Your task to perform on an android device: Go to Android settings Image 0: 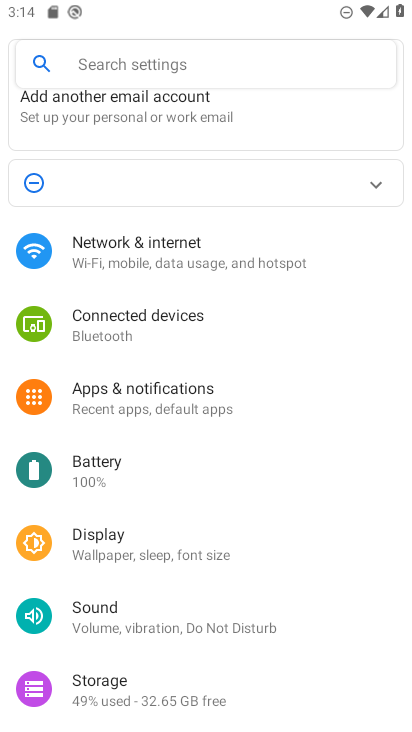
Step 0: press home button
Your task to perform on an android device: Go to Android settings Image 1: 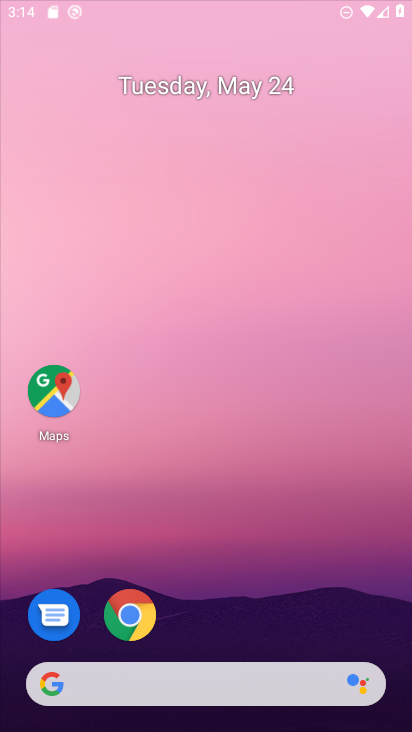
Step 1: drag from (228, 573) to (255, 199)
Your task to perform on an android device: Go to Android settings Image 2: 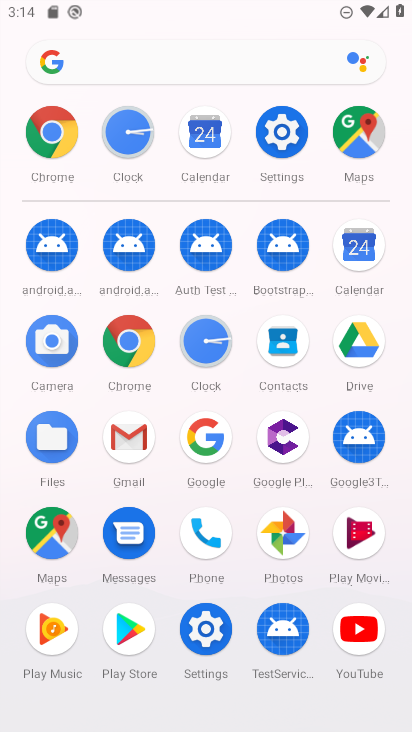
Step 2: click (292, 169)
Your task to perform on an android device: Go to Android settings Image 3: 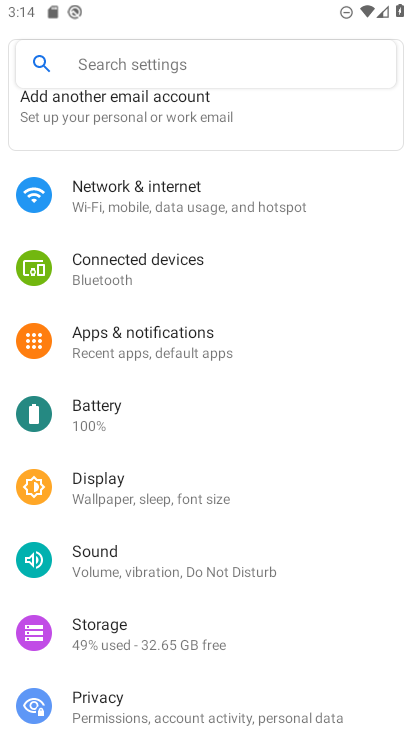
Step 3: drag from (199, 575) to (262, 226)
Your task to perform on an android device: Go to Android settings Image 4: 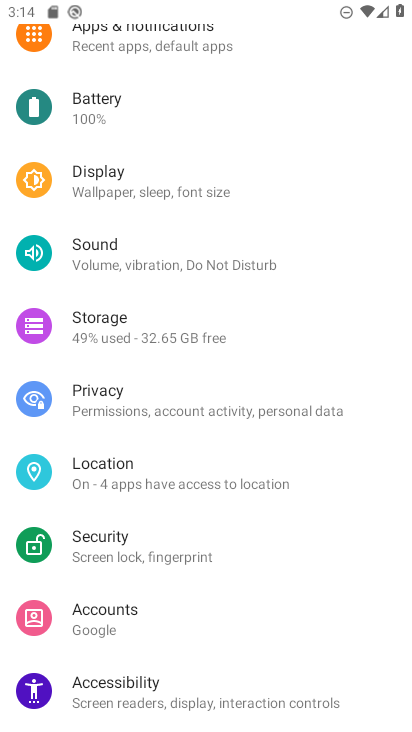
Step 4: drag from (179, 591) to (252, 264)
Your task to perform on an android device: Go to Android settings Image 5: 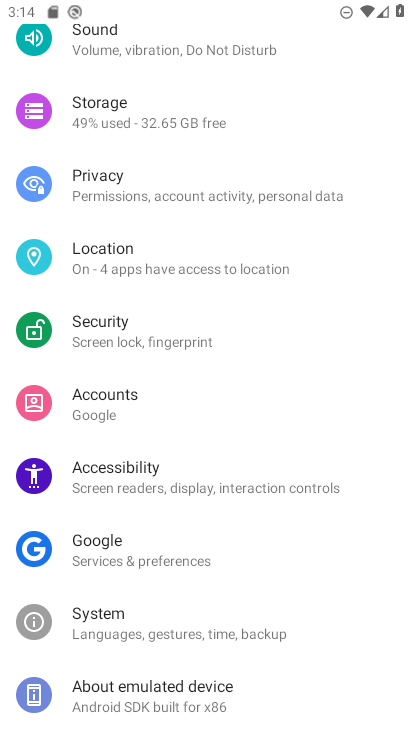
Step 5: drag from (209, 543) to (292, 218)
Your task to perform on an android device: Go to Android settings Image 6: 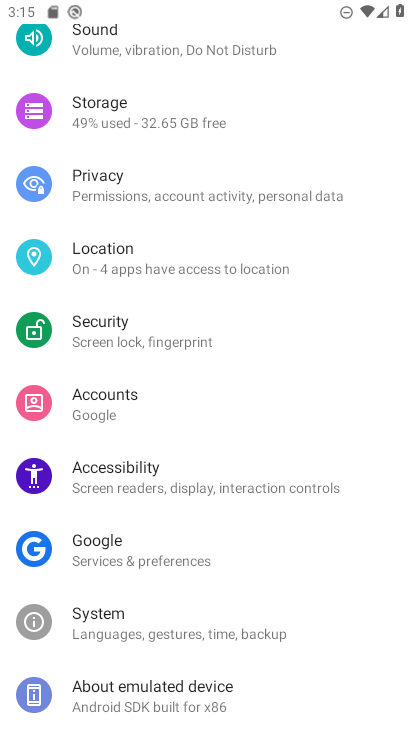
Step 6: click (208, 698)
Your task to perform on an android device: Go to Android settings Image 7: 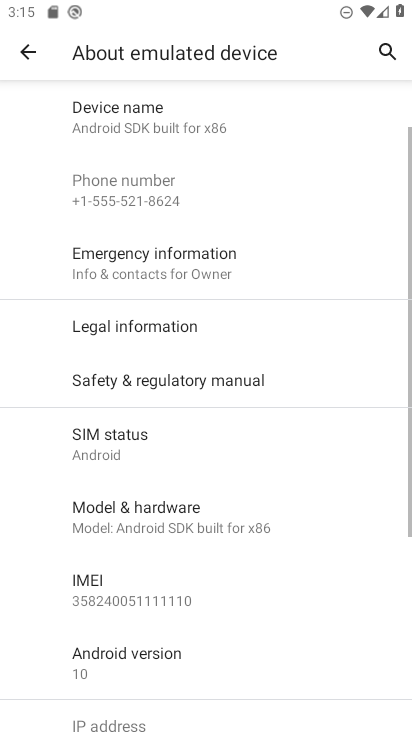
Step 7: drag from (202, 583) to (242, 308)
Your task to perform on an android device: Go to Android settings Image 8: 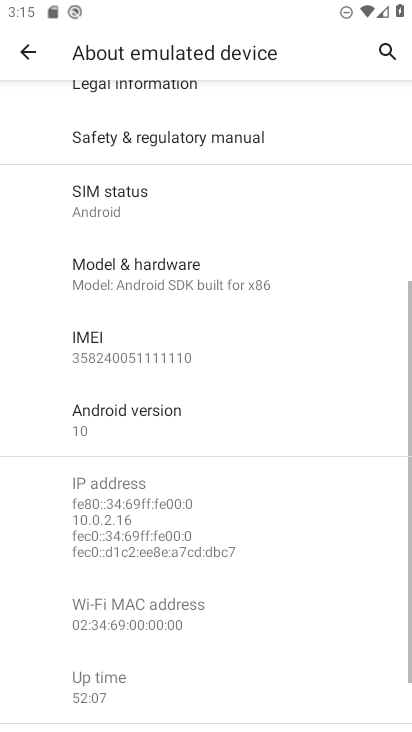
Step 8: click (164, 424)
Your task to perform on an android device: Go to Android settings Image 9: 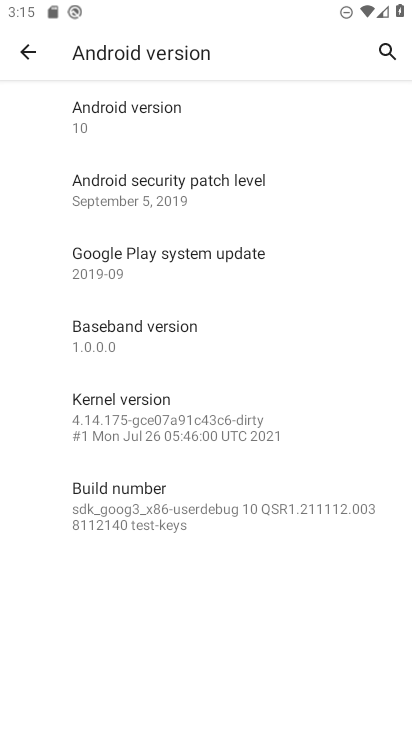
Step 9: click (248, 126)
Your task to perform on an android device: Go to Android settings Image 10: 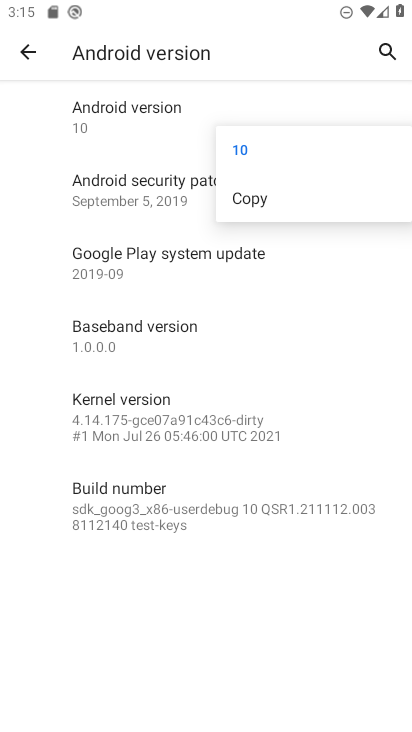
Step 10: task complete